Your task to perform on an android device: Is it going to rain today? Image 0: 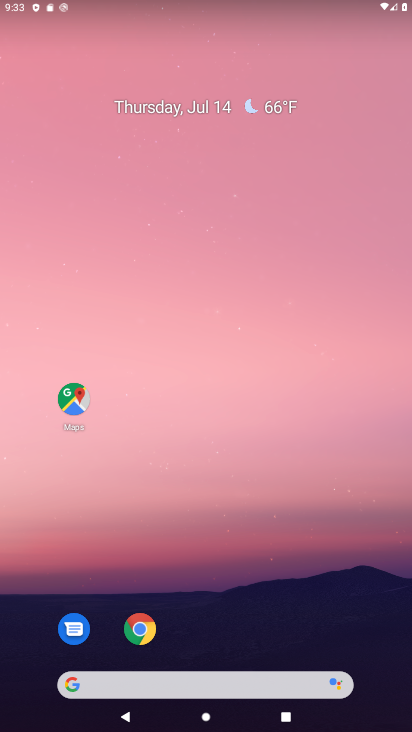
Step 0: drag from (29, 245) to (406, 256)
Your task to perform on an android device: Is it going to rain today? Image 1: 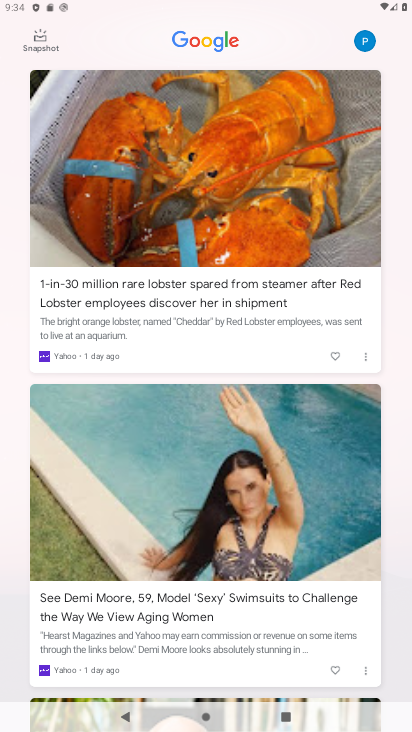
Step 1: task complete